Your task to perform on an android device: Go to sound settings Image 0: 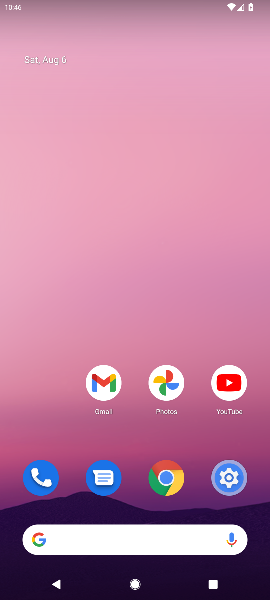
Step 0: drag from (135, 420) to (125, 136)
Your task to perform on an android device: Go to sound settings Image 1: 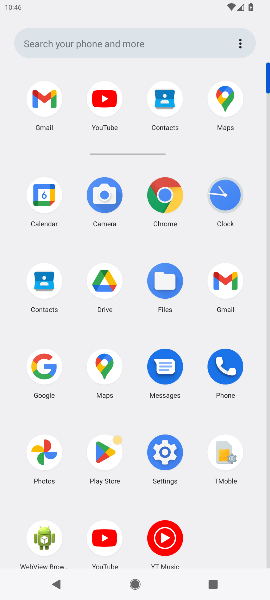
Step 1: click (164, 453)
Your task to perform on an android device: Go to sound settings Image 2: 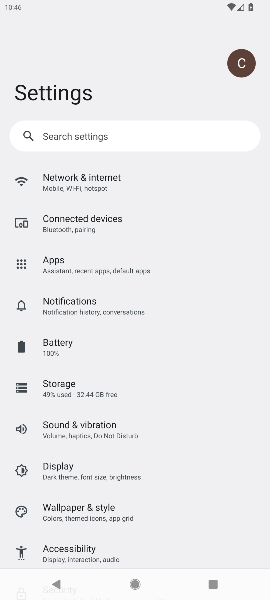
Step 2: drag from (64, 500) to (72, 376)
Your task to perform on an android device: Go to sound settings Image 3: 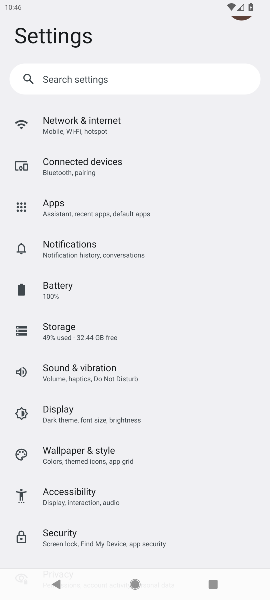
Step 3: click (70, 371)
Your task to perform on an android device: Go to sound settings Image 4: 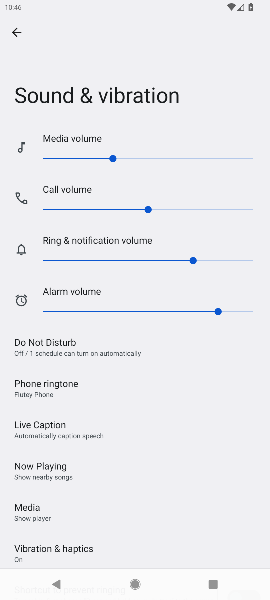
Step 4: task complete